Your task to perform on an android device: allow cookies in the chrome app Image 0: 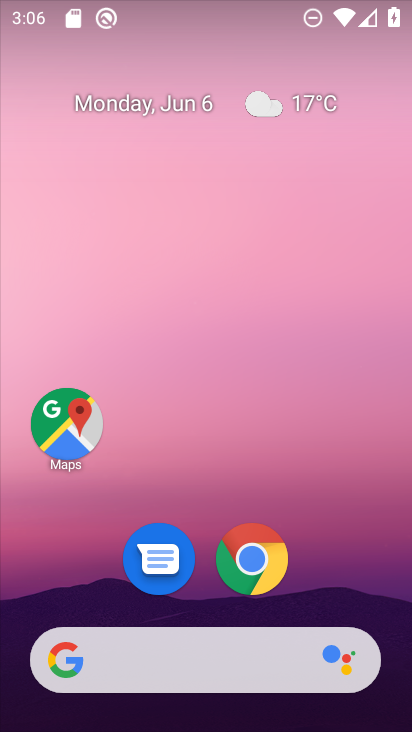
Step 0: click (264, 563)
Your task to perform on an android device: allow cookies in the chrome app Image 1: 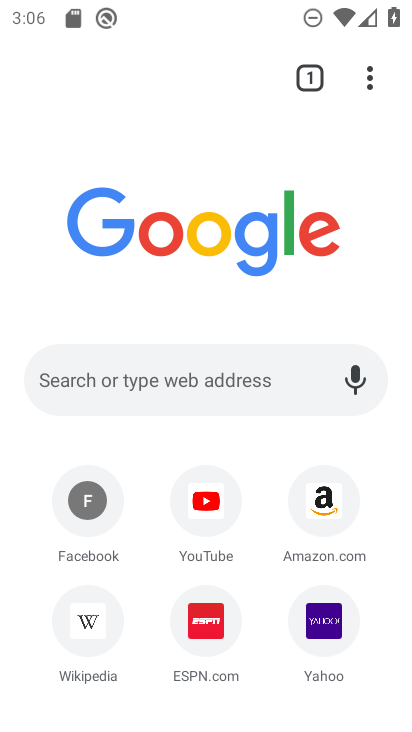
Step 1: click (364, 80)
Your task to perform on an android device: allow cookies in the chrome app Image 2: 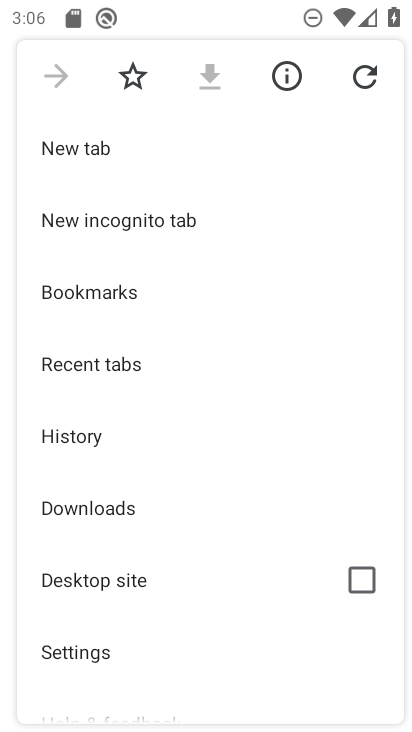
Step 2: drag from (128, 534) to (113, 190)
Your task to perform on an android device: allow cookies in the chrome app Image 3: 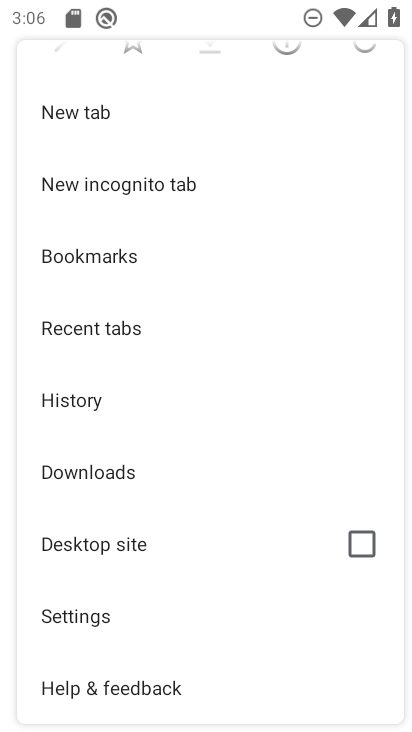
Step 3: click (121, 601)
Your task to perform on an android device: allow cookies in the chrome app Image 4: 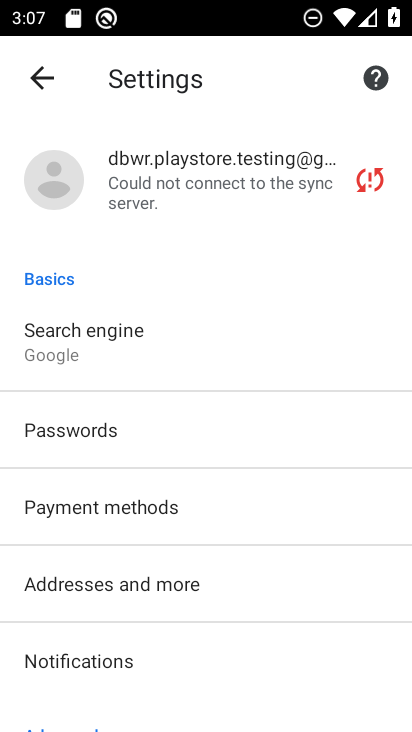
Step 4: drag from (192, 629) to (175, 248)
Your task to perform on an android device: allow cookies in the chrome app Image 5: 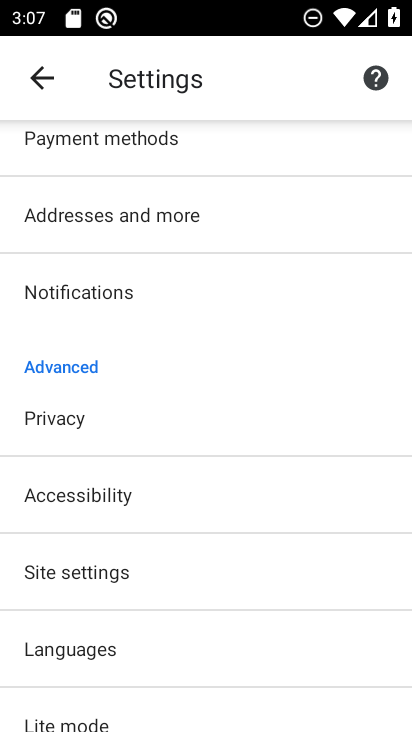
Step 5: drag from (139, 667) to (109, 440)
Your task to perform on an android device: allow cookies in the chrome app Image 6: 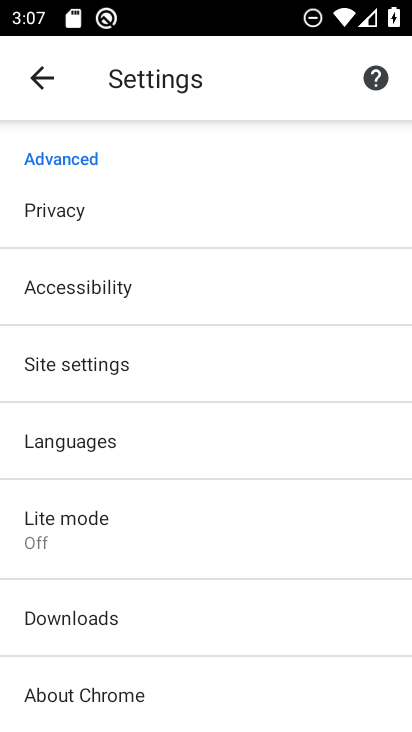
Step 6: drag from (102, 714) to (84, 618)
Your task to perform on an android device: allow cookies in the chrome app Image 7: 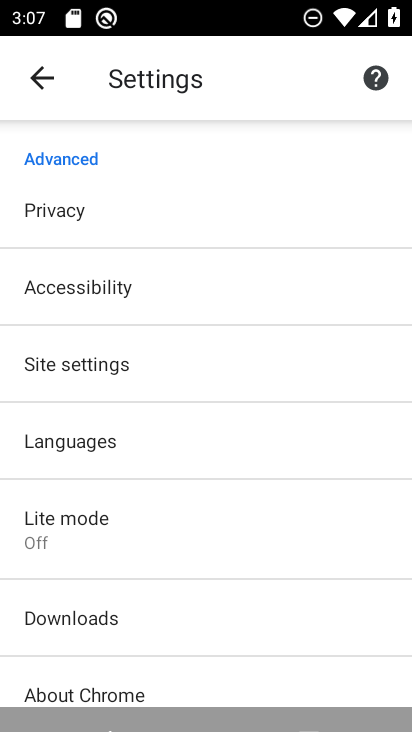
Step 7: click (100, 354)
Your task to perform on an android device: allow cookies in the chrome app Image 8: 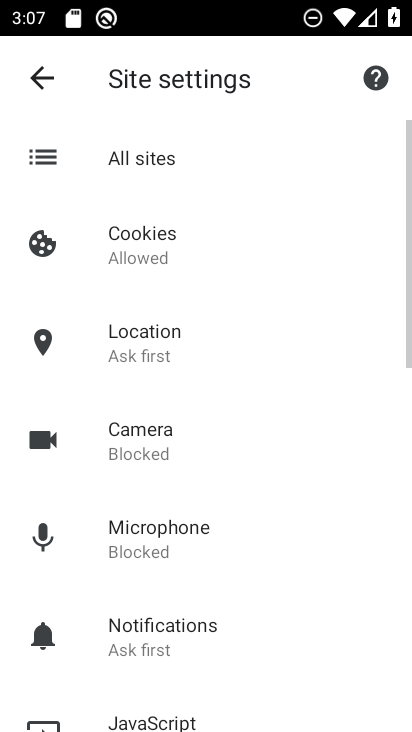
Step 8: click (164, 258)
Your task to perform on an android device: allow cookies in the chrome app Image 9: 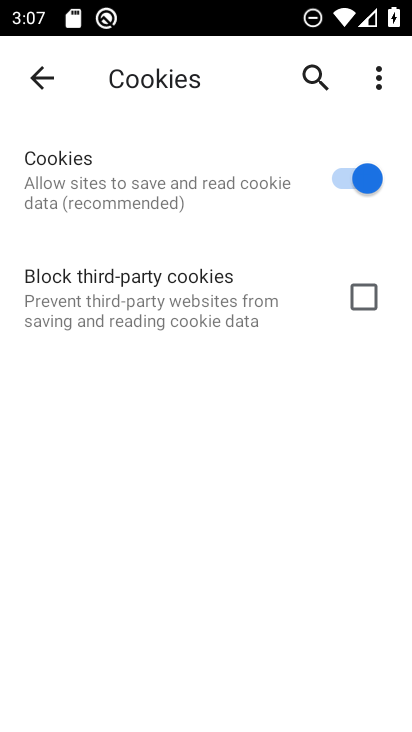
Step 9: task complete